Your task to perform on an android device: refresh tabs in the chrome app Image 0: 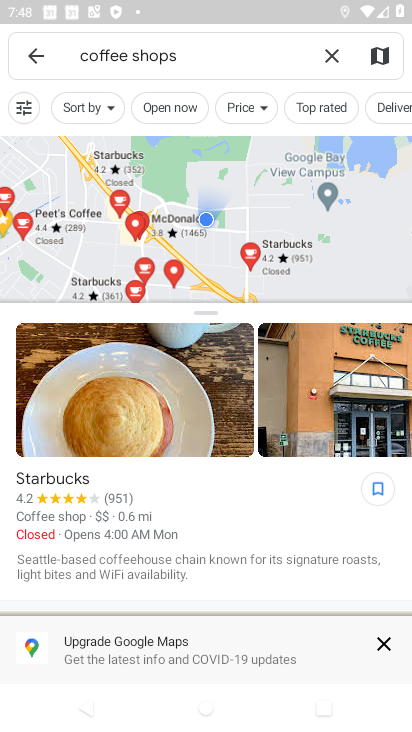
Step 0: press home button
Your task to perform on an android device: refresh tabs in the chrome app Image 1: 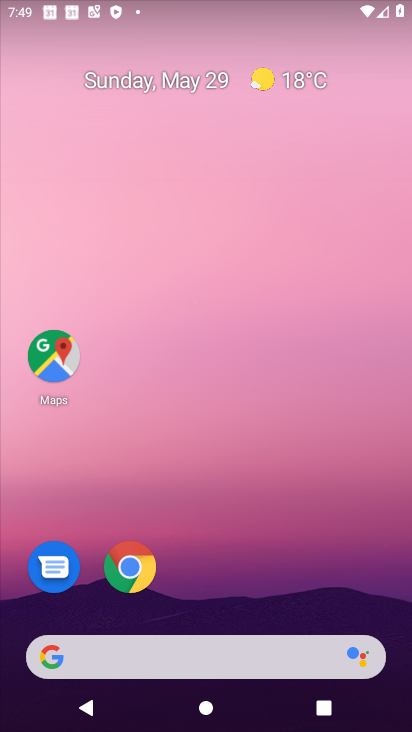
Step 1: click (132, 569)
Your task to perform on an android device: refresh tabs in the chrome app Image 2: 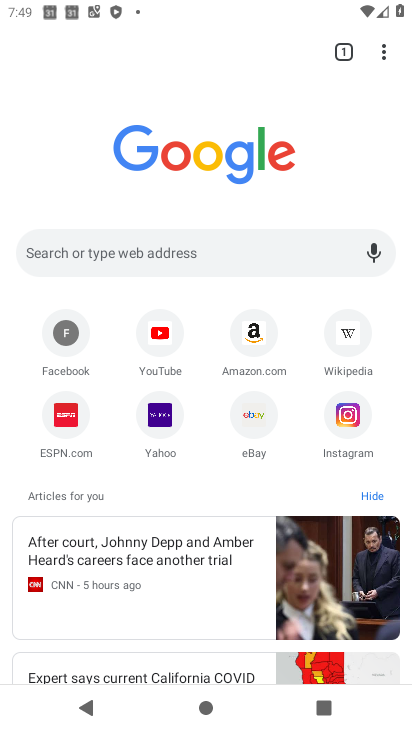
Step 2: click (384, 52)
Your task to perform on an android device: refresh tabs in the chrome app Image 3: 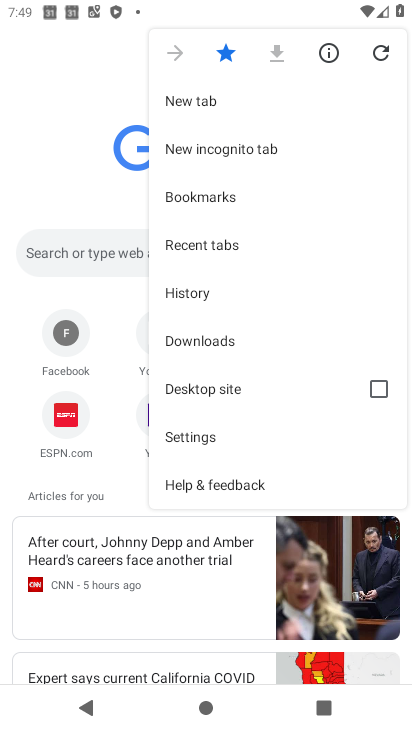
Step 3: click (384, 51)
Your task to perform on an android device: refresh tabs in the chrome app Image 4: 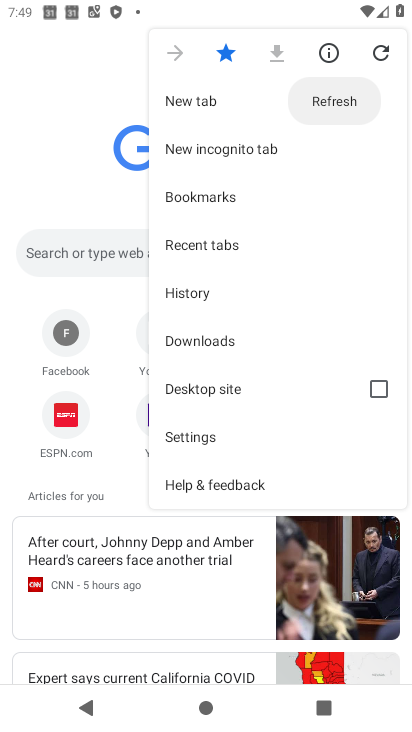
Step 4: click (384, 51)
Your task to perform on an android device: refresh tabs in the chrome app Image 5: 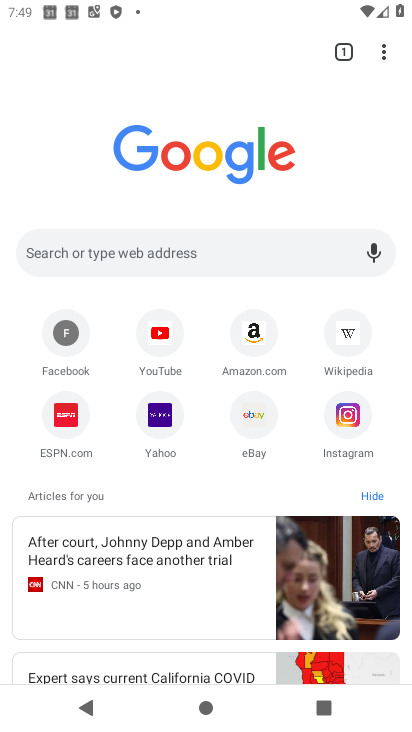
Step 5: task complete